Your task to perform on an android device: toggle improve location accuracy Image 0: 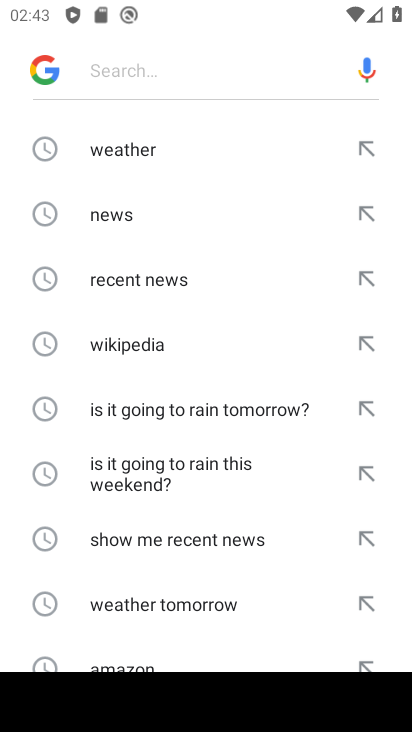
Step 0: press home button
Your task to perform on an android device: toggle improve location accuracy Image 1: 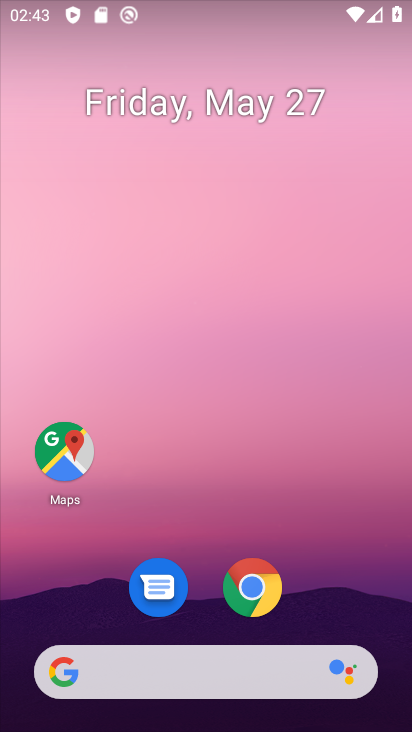
Step 1: drag from (342, 617) to (328, 221)
Your task to perform on an android device: toggle improve location accuracy Image 2: 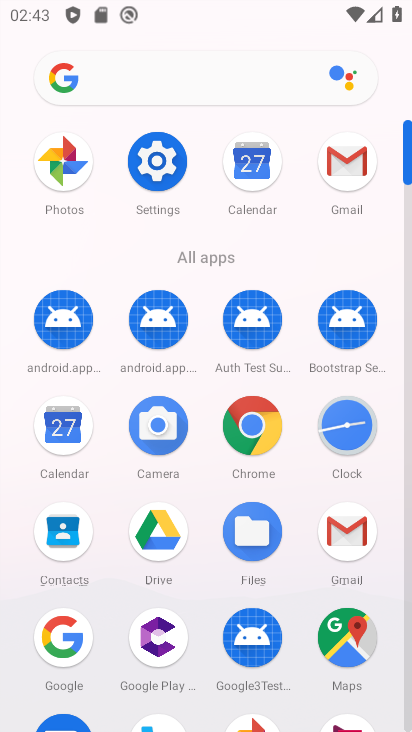
Step 2: click (158, 167)
Your task to perform on an android device: toggle improve location accuracy Image 3: 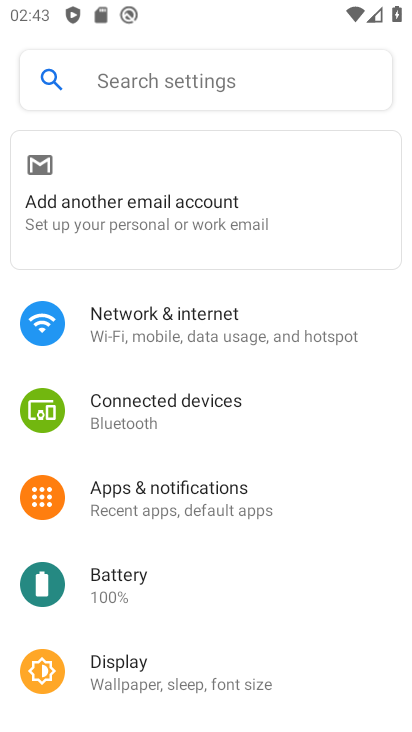
Step 3: drag from (237, 625) to (230, 270)
Your task to perform on an android device: toggle improve location accuracy Image 4: 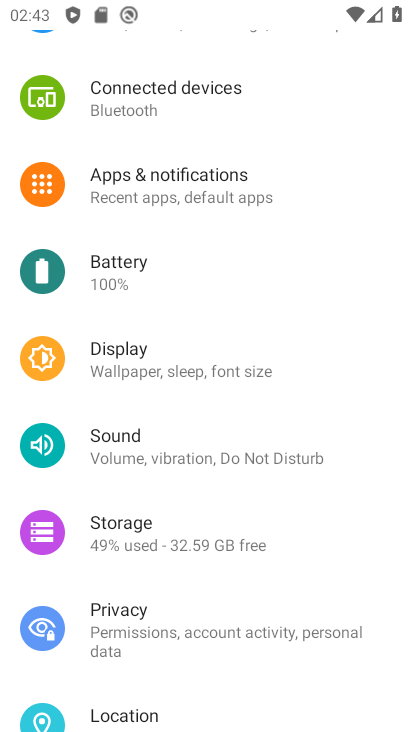
Step 4: click (141, 716)
Your task to perform on an android device: toggle improve location accuracy Image 5: 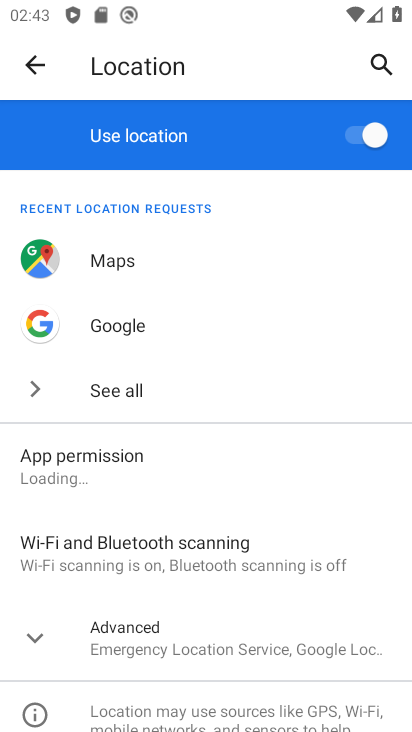
Step 5: click (130, 633)
Your task to perform on an android device: toggle improve location accuracy Image 6: 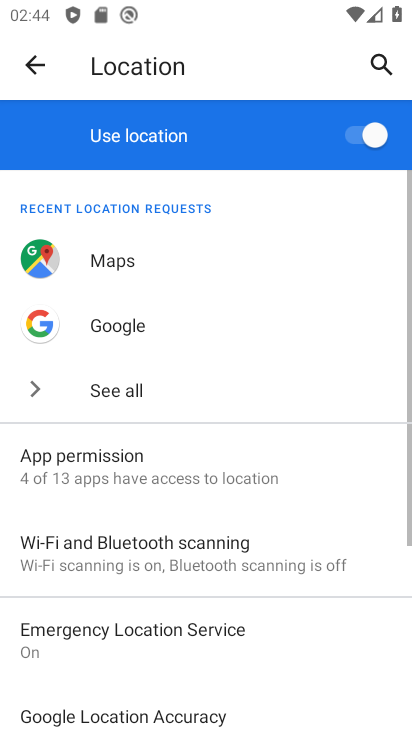
Step 6: drag from (311, 626) to (311, 345)
Your task to perform on an android device: toggle improve location accuracy Image 7: 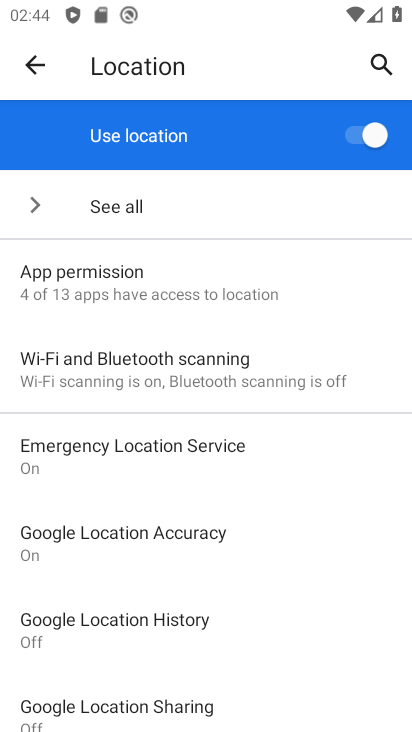
Step 7: click (139, 536)
Your task to perform on an android device: toggle improve location accuracy Image 8: 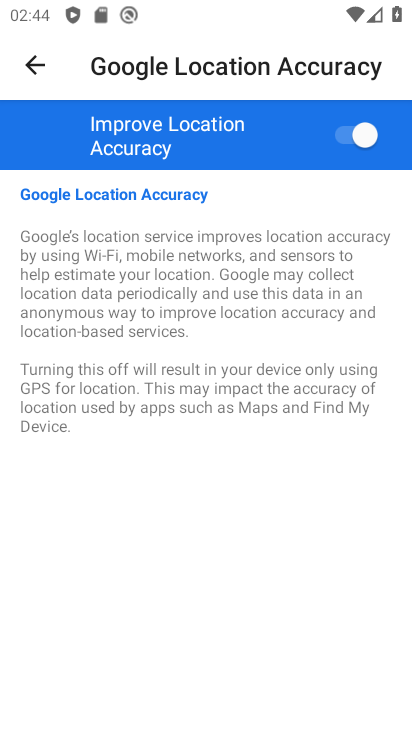
Step 8: click (364, 134)
Your task to perform on an android device: toggle improve location accuracy Image 9: 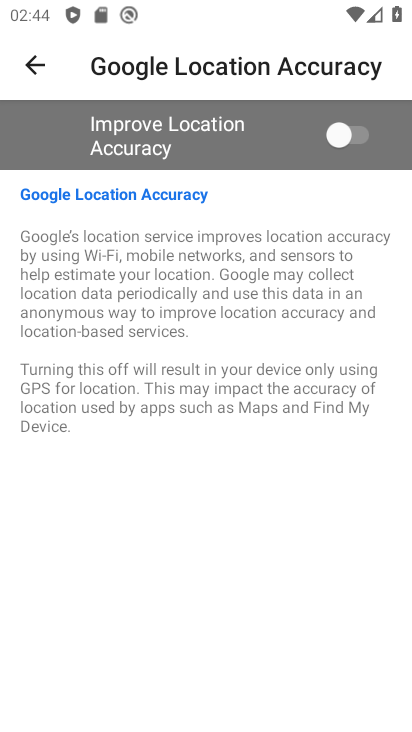
Step 9: task complete